Your task to perform on an android device: turn on sleep mode Image 0: 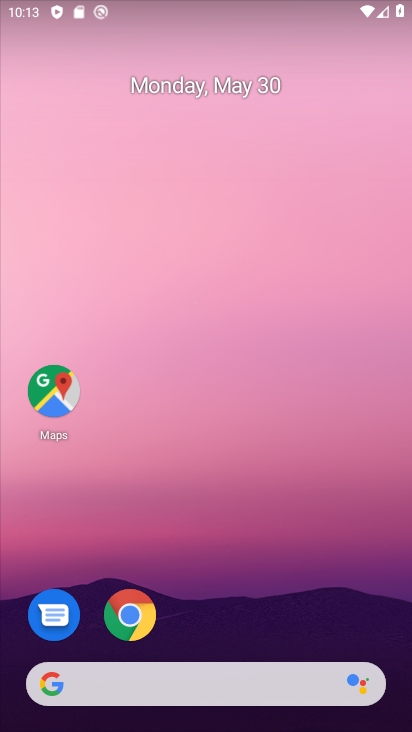
Step 0: drag from (219, 730) to (226, 182)
Your task to perform on an android device: turn on sleep mode Image 1: 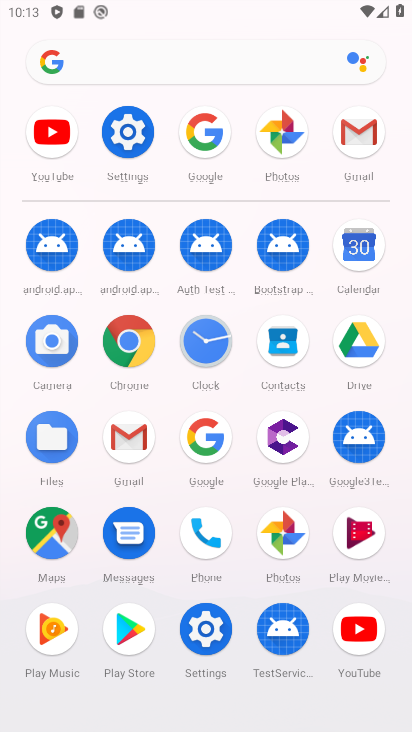
Step 1: click (135, 142)
Your task to perform on an android device: turn on sleep mode Image 2: 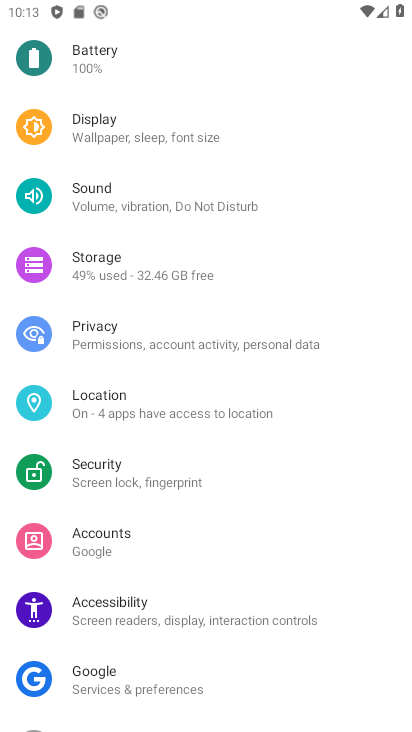
Step 2: task complete